Your task to perform on an android device: find photos in the google photos app Image 0: 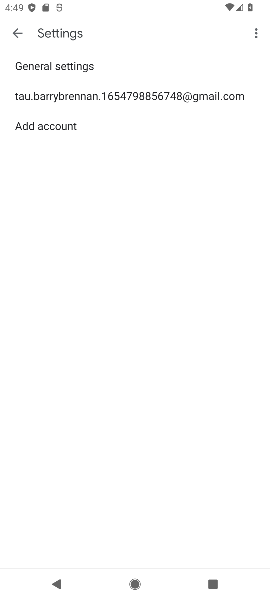
Step 0: press home button
Your task to perform on an android device: find photos in the google photos app Image 1: 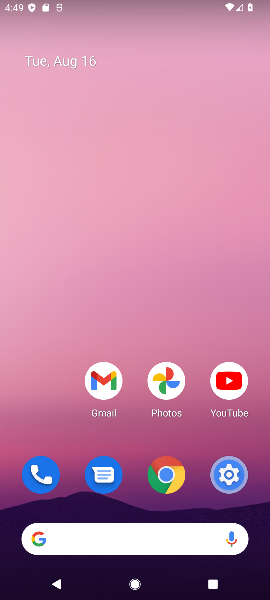
Step 1: drag from (260, 512) to (0, 67)
Your task to perform on an android device: find photos in the google photos app Image 2: 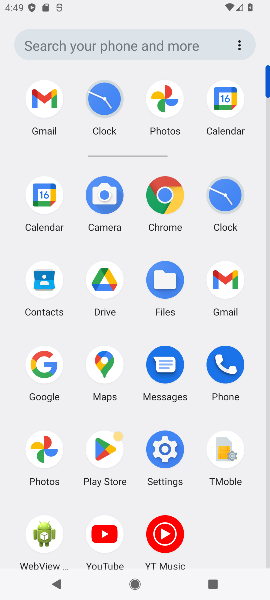
Step 2: click (43, 458)
Your task to perform on an android device: find photos in the google photos app Image 3: 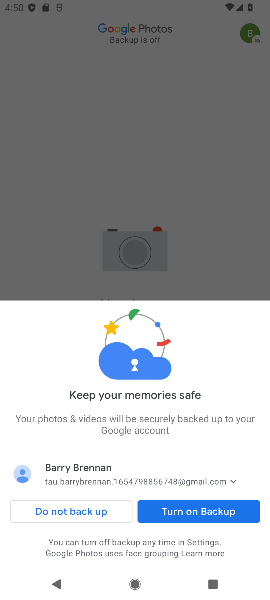
Step 3: task complete